Your task to perform on an android device: Open Yahoo.com Image 0: 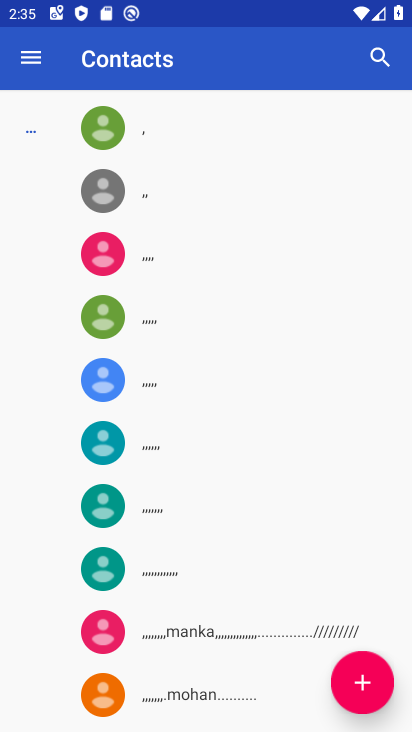
Step 0: press home button
Your task to perform on an android device: Open Yahoo.com Image 1: 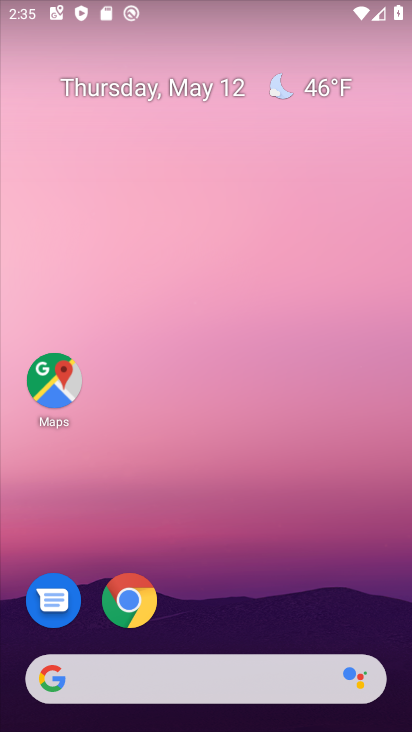
Step 1: click (126, 593)
Your task to perform on an android device: Open Yahoo.com Image 2: 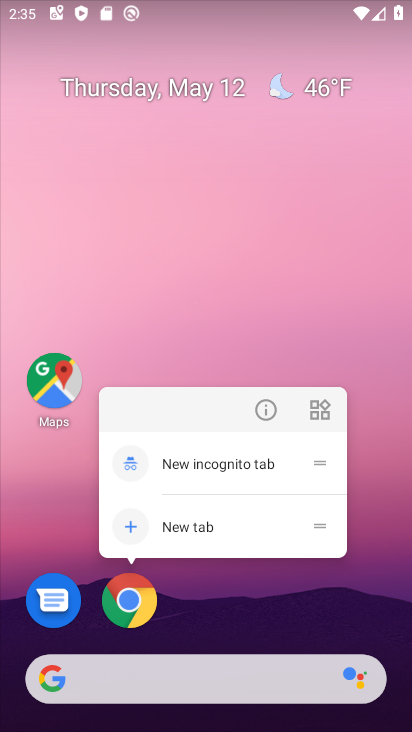
Step 2: click (124, 603)
Your task to perform on an android device: Open Yahoo.com Image 3: 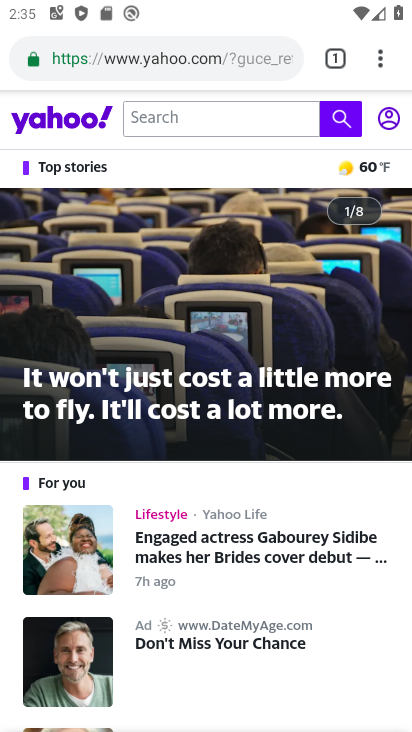
Step 3: task complete